Your task to perform on an android device: Go to Maps Image 0: 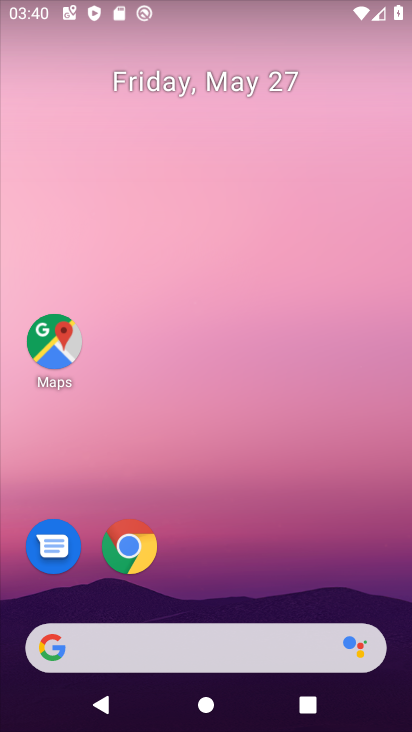
Step 0: click (62, 328)
Your task to perform on an android device: Go to Maps Image 1: 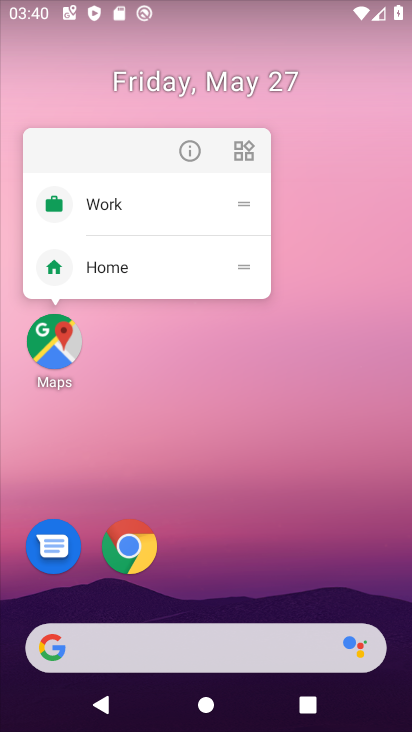
Step 1: click (49, 345)
Your task to perform on an android device: Go to Maps Image 2: 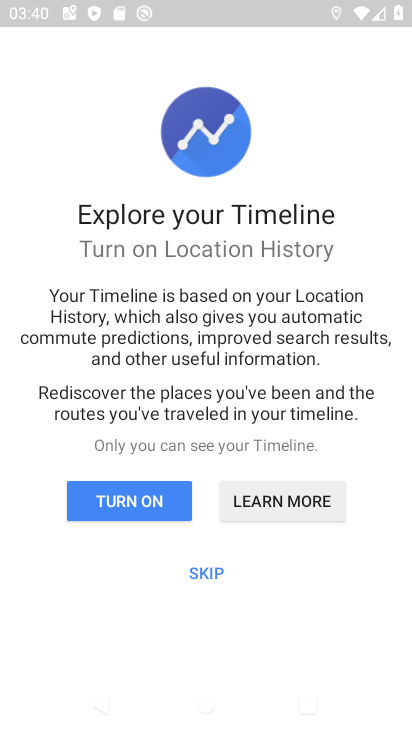
Step 2: click (147, 495)
Your task to perform on an android device: Go to Maps Image 3: 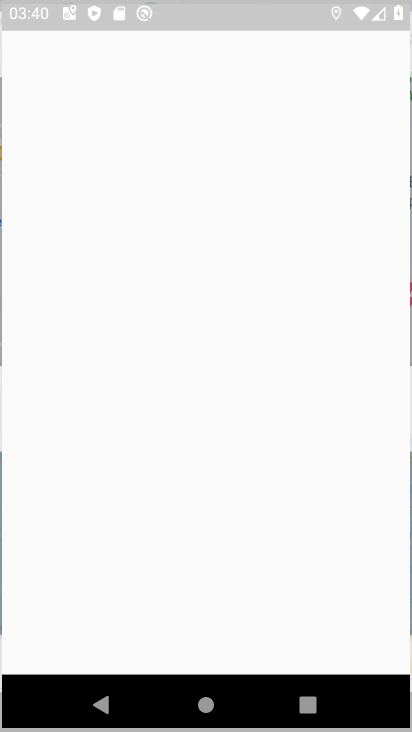
Step 3: click (28, 60)
Your task to perform on an android device: Go to Maps Image 4: 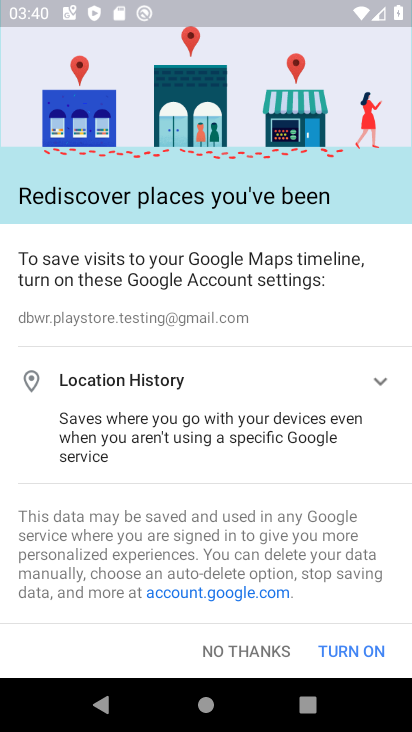
Step 4: task complete